Your task to perform on an android device: Add apple airpods pro to the cart on bestbuy.com Image 0: 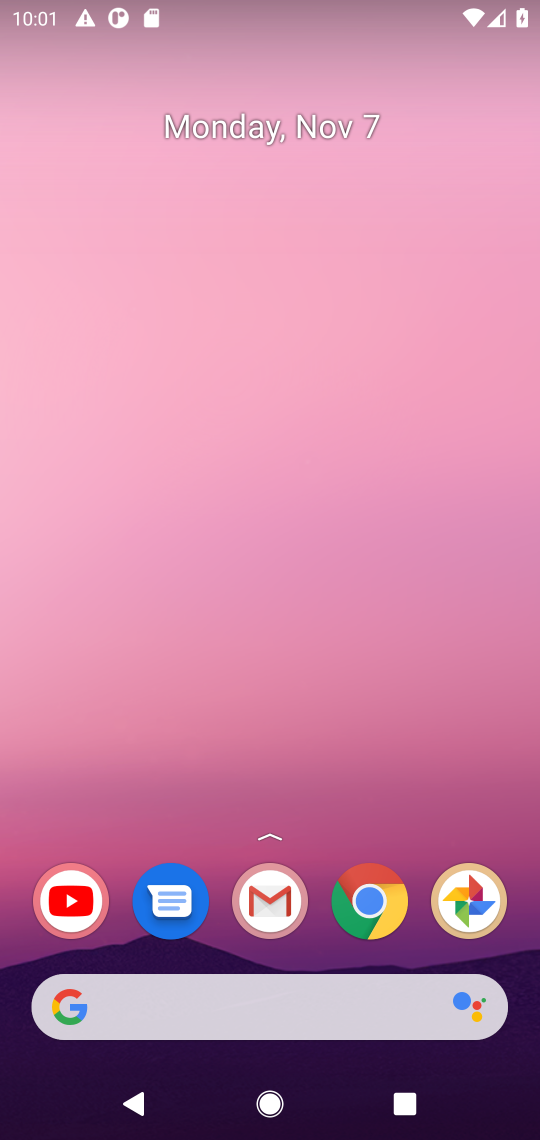
Step 0: click (361, 912)
Your task to perform on an android device: Add apple airpods pro to the cart on bestbuy.com Image 1: 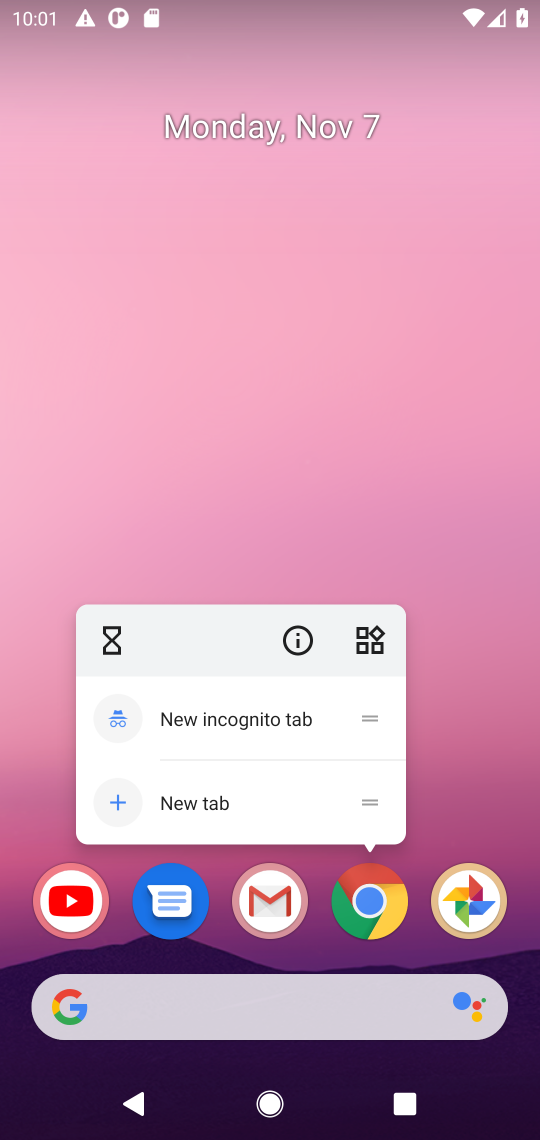
Step 1: click (383, 888)
Your task to perform on an android device: Add apple airpods pro to the cart on bestbuy.com Image 2: 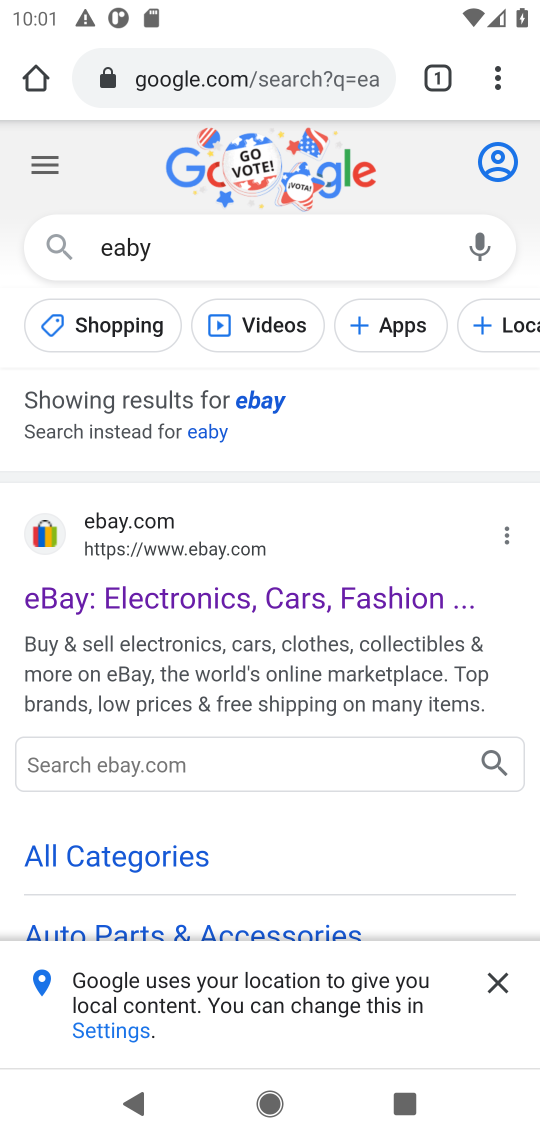
Step 2: click (237, 80)
Your task to perform on an android device: Add apple airpods pro to the cart on bestbuy.com Image 3: 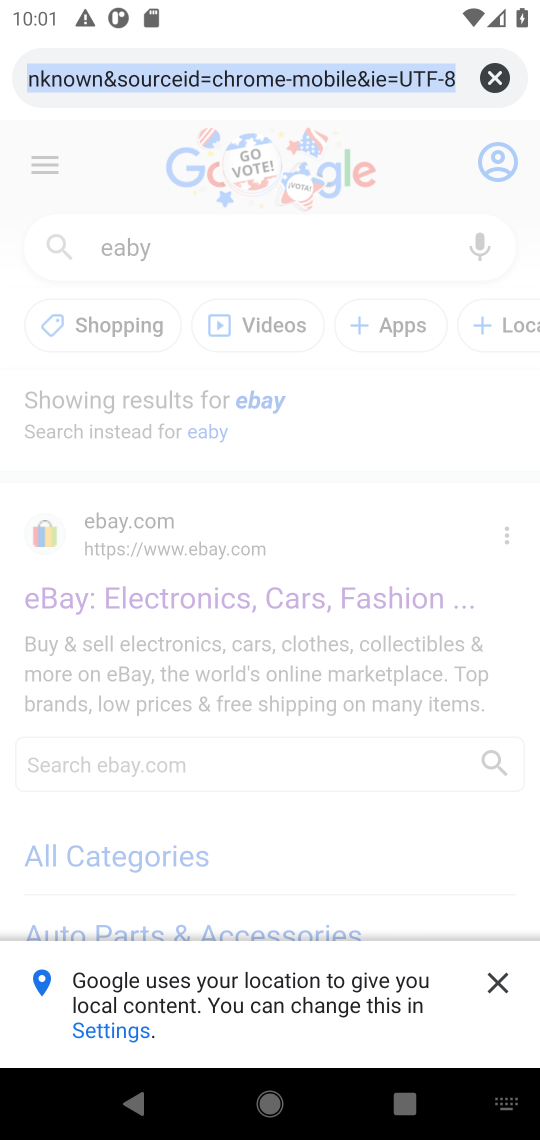
Step 3: type "bestbuy.com"
Your task to perform on an android device: Add apple airpods pro to the cart on bestbuy.com Image 4: 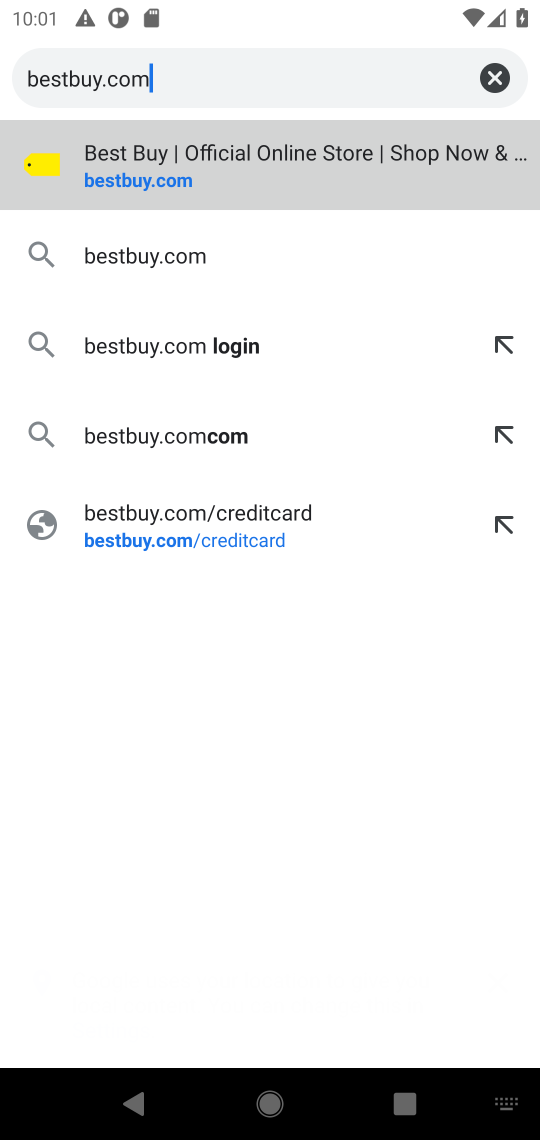
Step 4: click (204, 147)
Your task to perform on an android device: Add apple airpods pro to the cart on bestbuy.com Image 5: 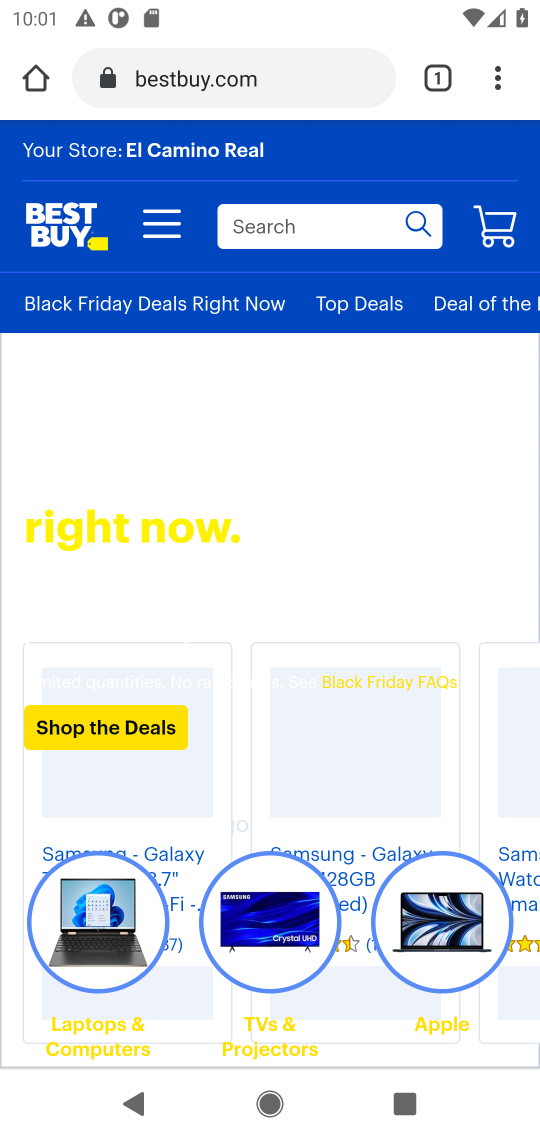
Step 5: click (311, 222)
Your task to perform on an android device: Add apple airpods pro to the cart on bestbuy.com Image 6: 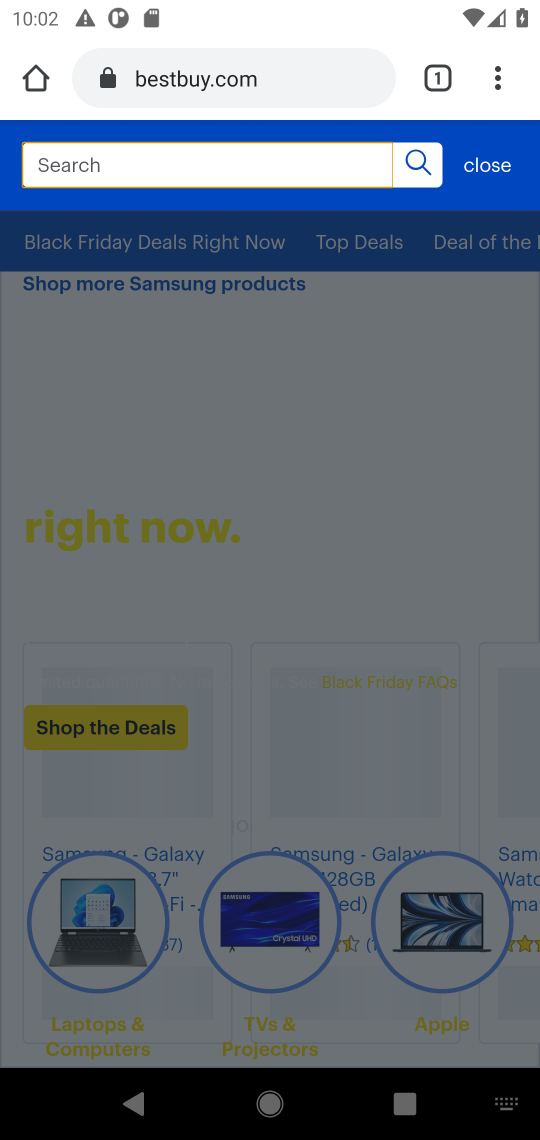
Step 6: type "airpods pro"
Your task to perform on an android device: Add apple airpods pro to the cart on bestbuy.com Image 7: 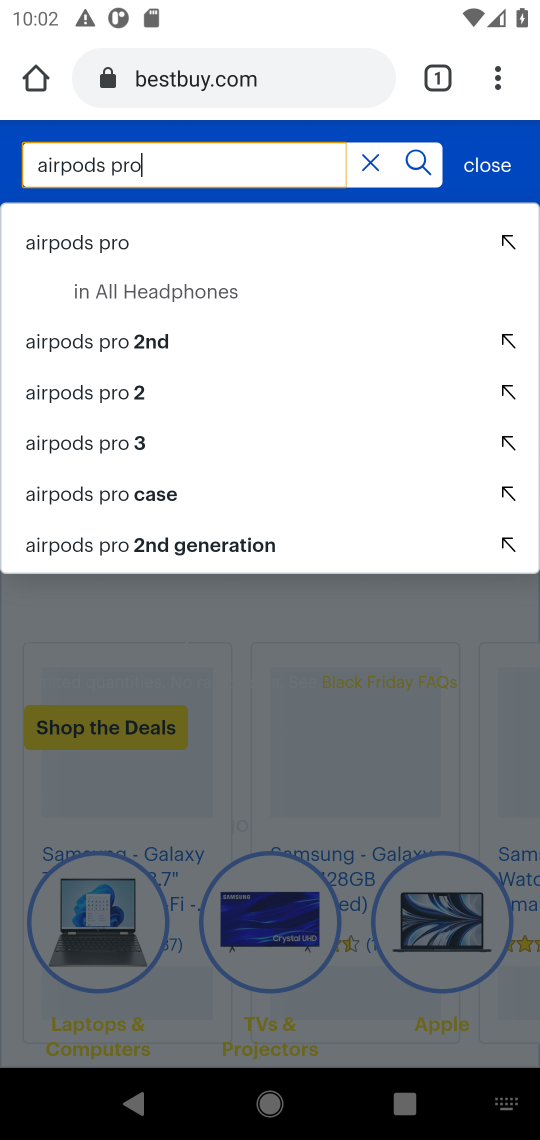
Step 7: click (102, 245)
Your task to perform on an android device: Add apple airpods pro to the cart on bestbuy.com Image 8: 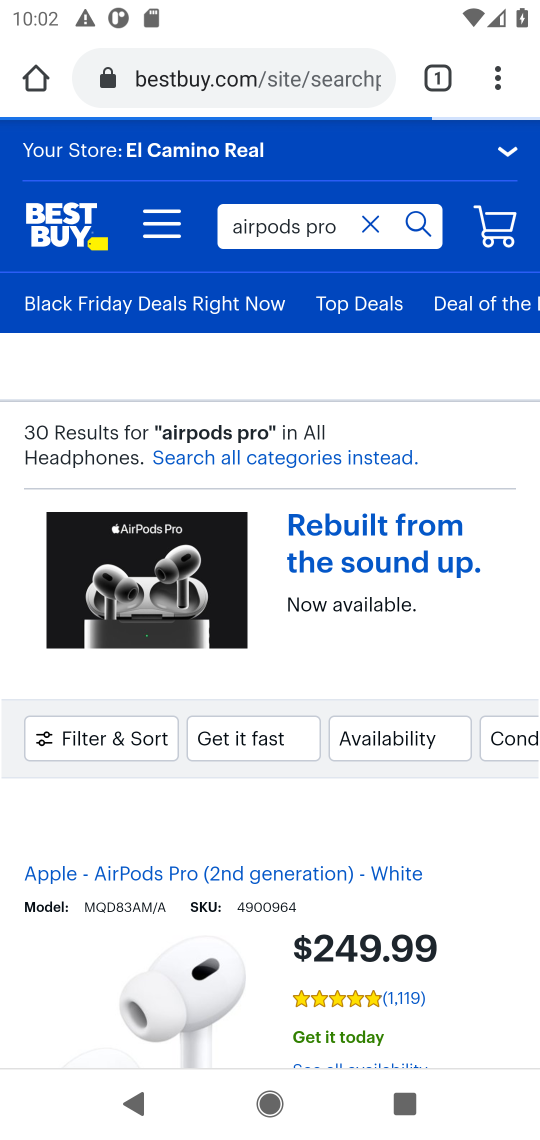
Step 8: drag from (232, 1007) to (259, 317)
Your task to perform on an android device: Add apple airpods pro to the cart on bestbuy.com Image 9: 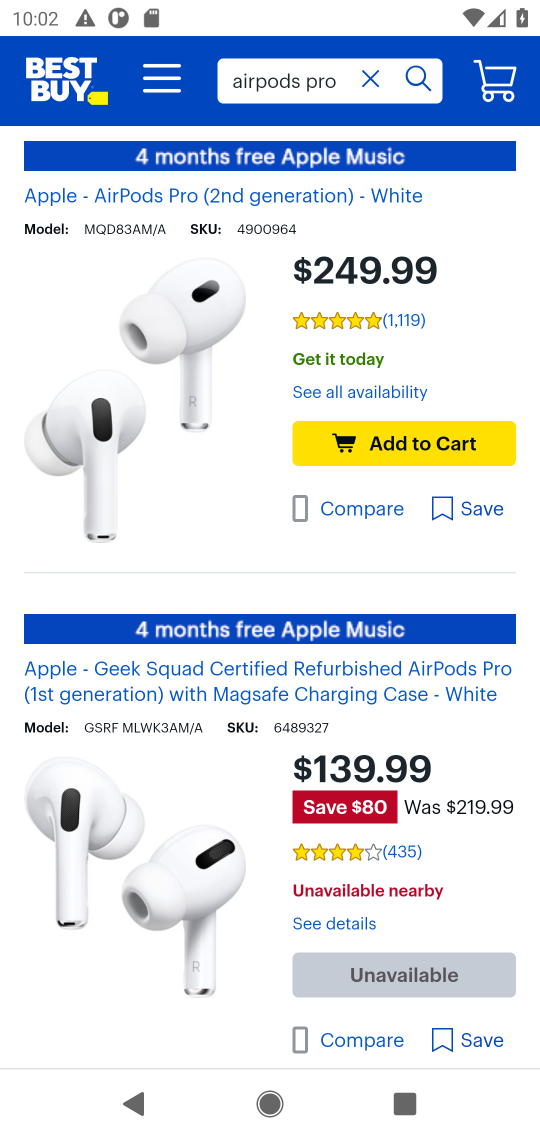
Step 9: click (395, 485)
Your task to perform on an android device: Add apple airpods pro to the cart on bestbuy.com Image 10: 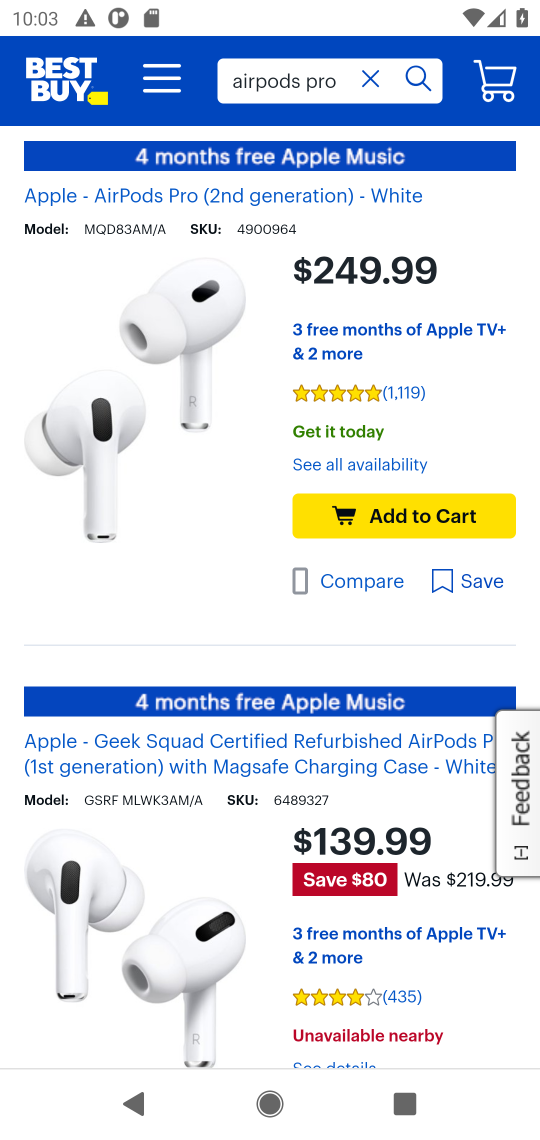
Step 10: click (402, 522)
Your task to perform on an android device: Add apple airpods pro to the cart on bestbuy.com Image 11: 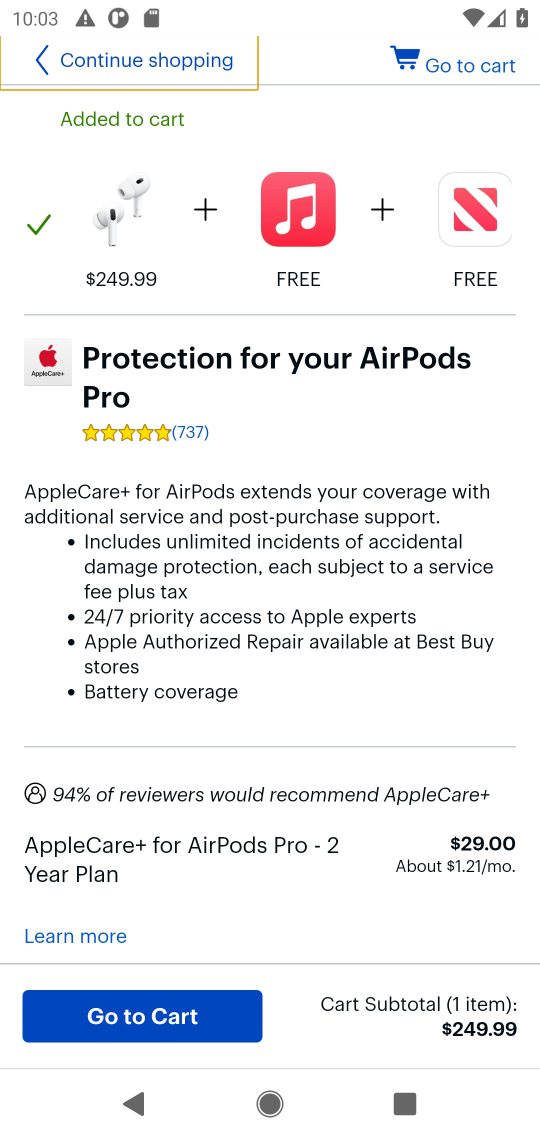
Step 11: task complete